Your task to perform on an android device: check the backup settings in the google photos Image 0: 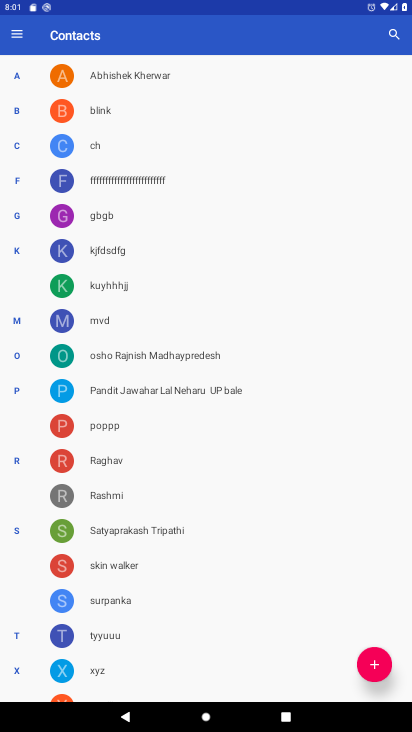
Step 0: press home button
Your task to perform on an android device: check the backup settings in the google photos Image 1: 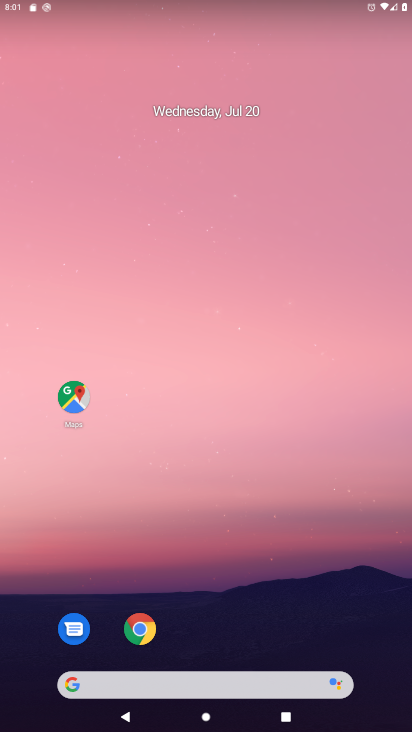
Step 1: drag from (299, 599) to (295, 270)
Your task to perform on an android device: check the backup settings in the google photos Image 2: 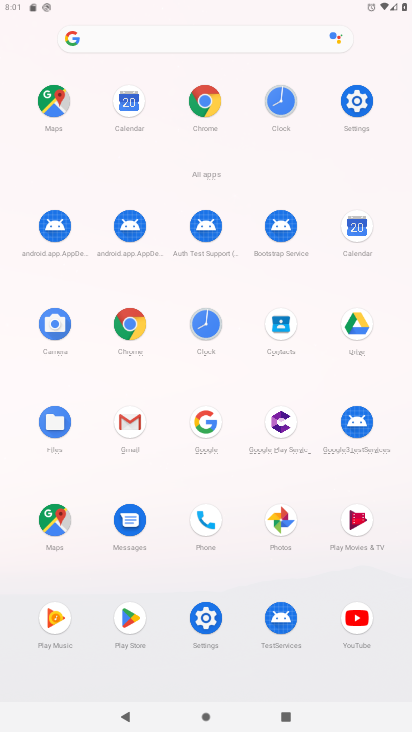
Step 2: click (287, 530)
Your task to perform on an android device: check the backup settings in the google photos Image 3: 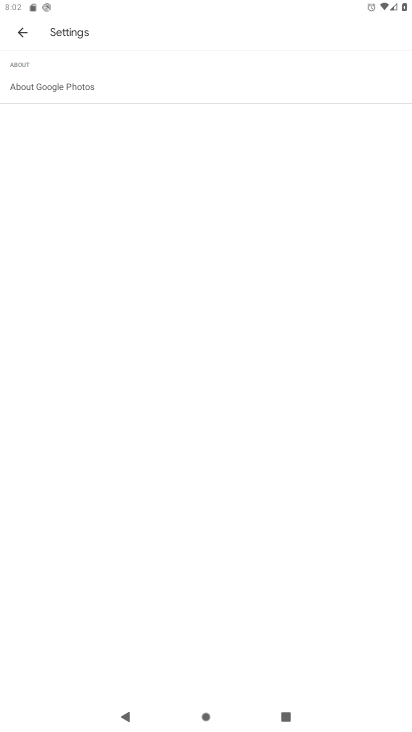
Step 3: click (20, 36)
Your task to perform on an android device: check the backup settings in the google photos Image 4: 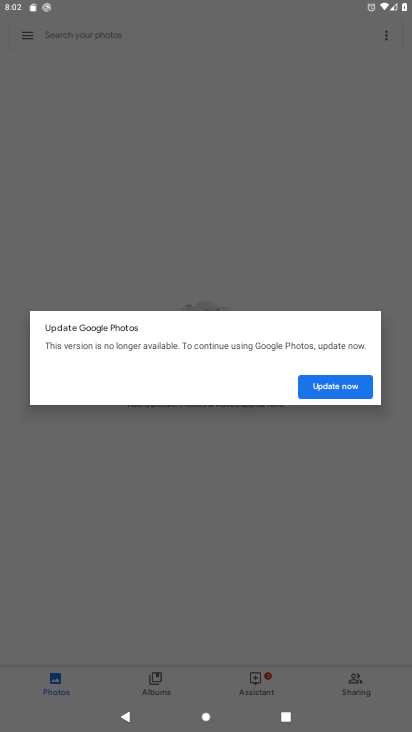
Step 4: click (325, 385)
Your task to perform on an android device: check the backup settings in the google photos Image 5: 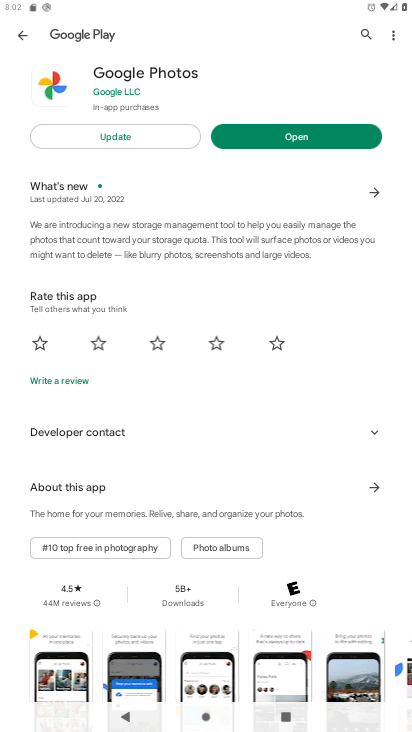
Step 5: click (321, 370)
Your task to perform on an android device: check the backup settings in the google photos Image 6: 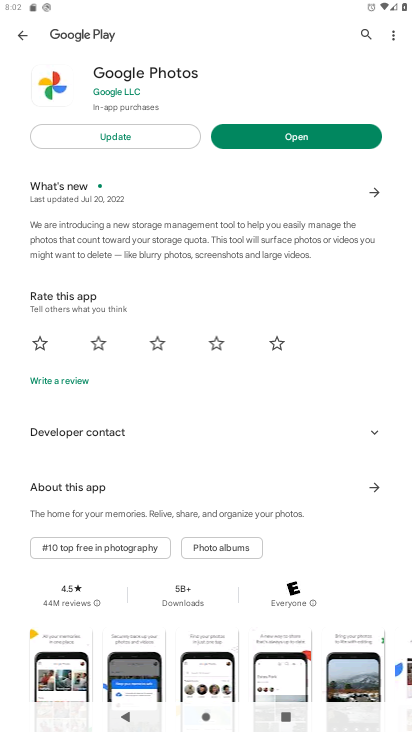
Step 6: click (151, 141)
Your task to perform on an android device: check the backup settings in the google photos Image 7: 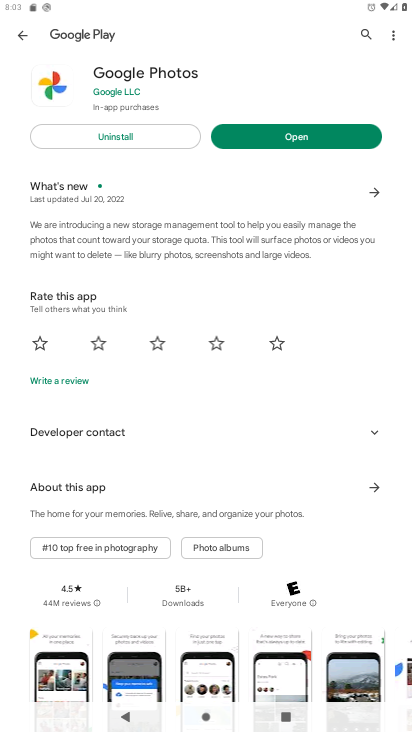
Step 7: click (294, 136)
Your task to perform on an android device: check the backup settings in the google photos Image 8: 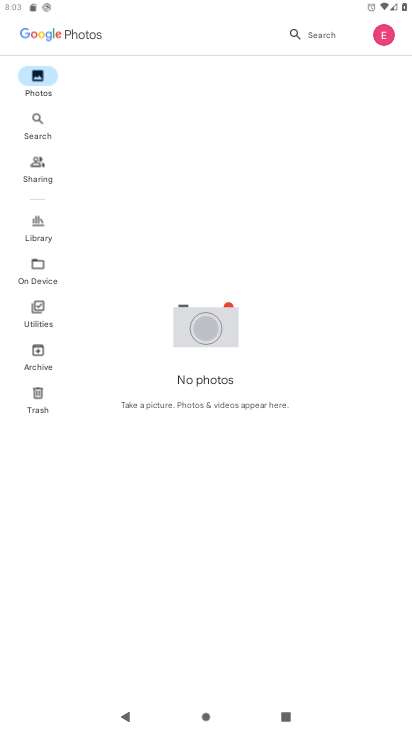
Step 8: click (383, 40)
Your task to perform on an android device: check the backup settings in the google photos Image 9: 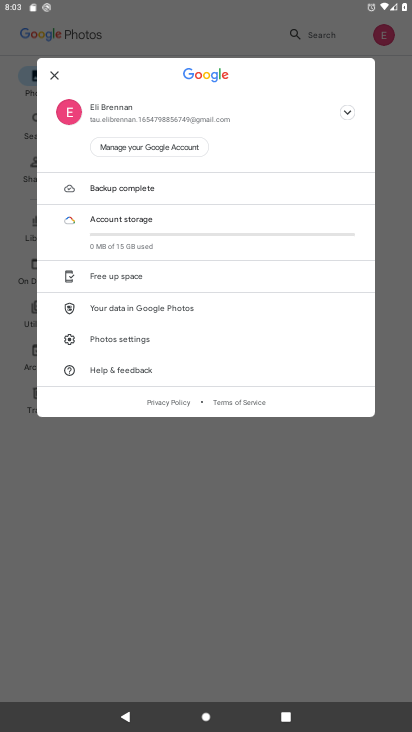
Step 9: click (135, 186)
Your task to perform on an android device: check the backup settings in the google photos Image 10: 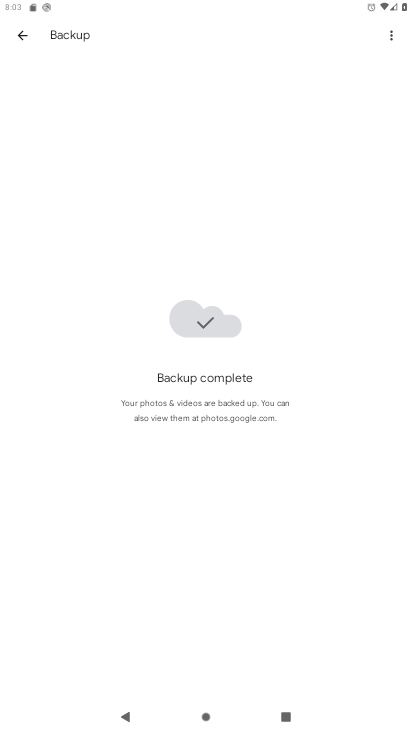
Step 10: task complete